Your task to perform on an android device: delete browsing data in the chrome app Image 0: 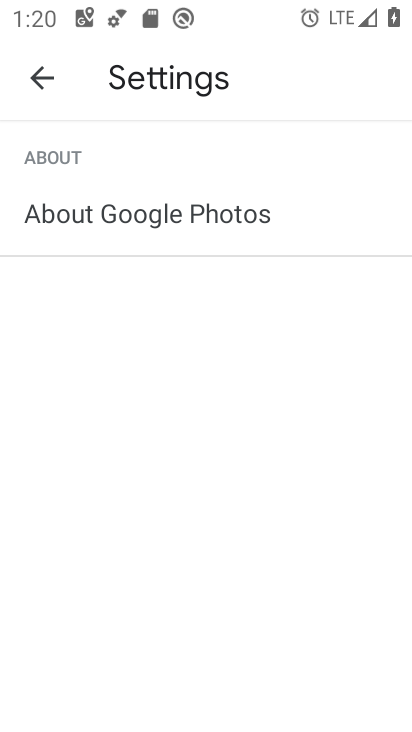
Step 0: press home button
Your task to perform on an android device: delete browsing data in the chrome app Image 1: 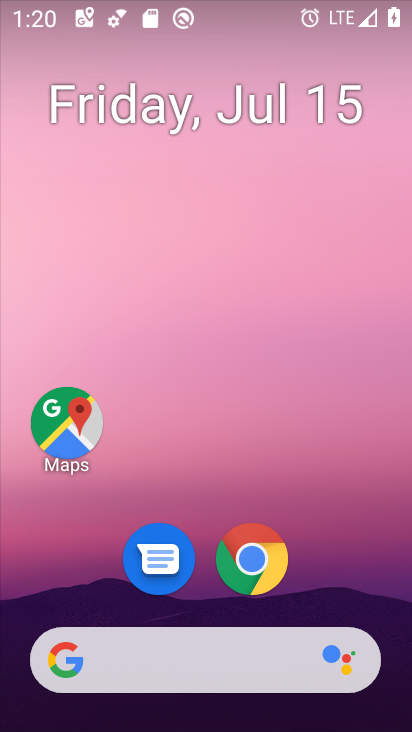
Step 1: drag from (364, 576) to (357, 85)
Your task to perform on an android device: delete browsing data in the chrome app Image 2: 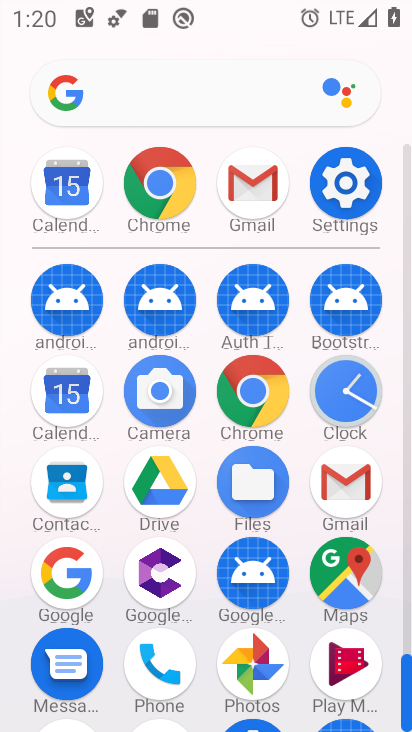
Step 2: click (260, 392)
Your task to perform on an android device: delete browsing data in the chrome app Image 3: 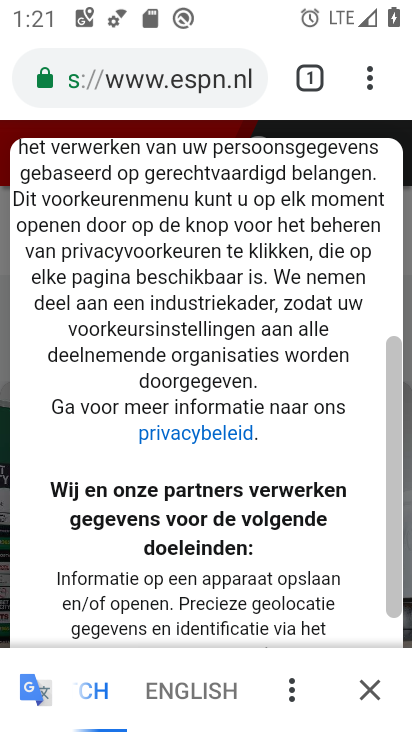
Step 3: click (365, 86)
Your task to perform on an android device: delete browsing data in the chrome app Image 4: 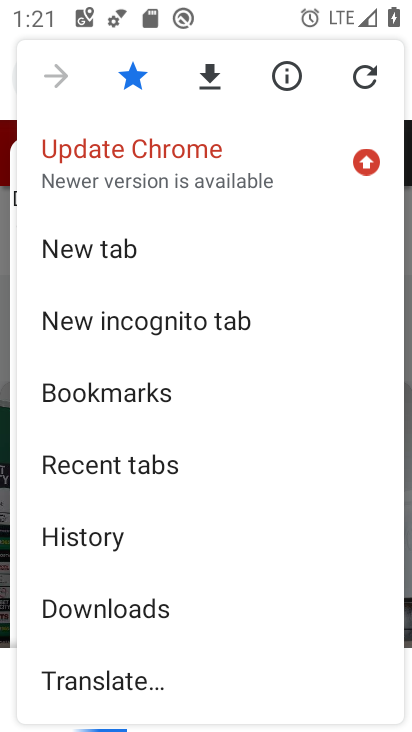
Step 4: drag from (317, 409) to (329, 311)
Your task to perform on an android device: delete browsing data in the chrome app Image 5: 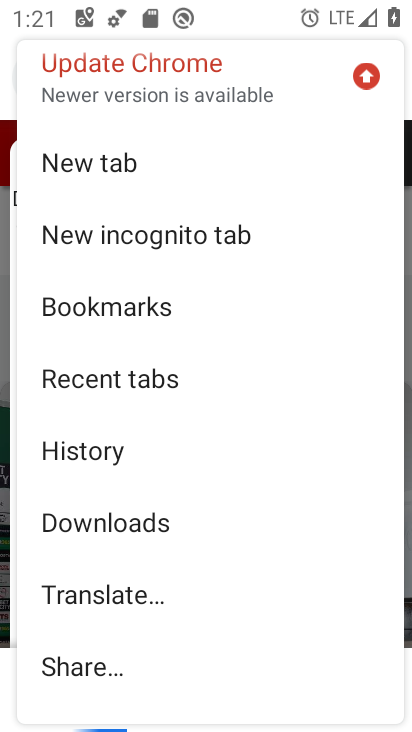
Step 5: drag from (311, 435) to (316, 358)
Your task to perform on an android device: delete browsing data in the chrome app Image 6: 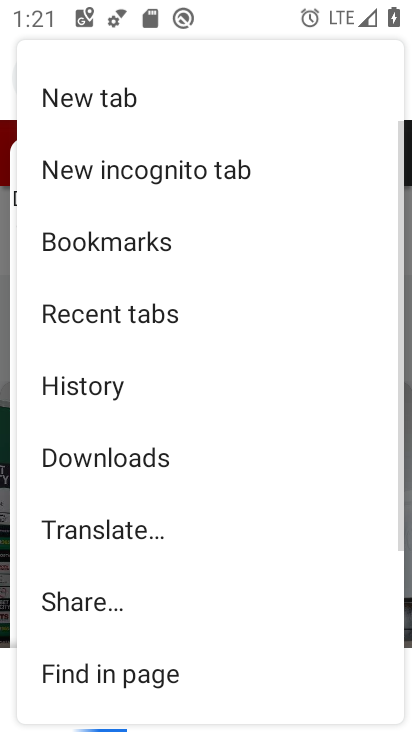
Step 6: drag from (322, 481) to (322, 399)
Your task to perform on an android device: delete browsing data in the chrome app Image 7: 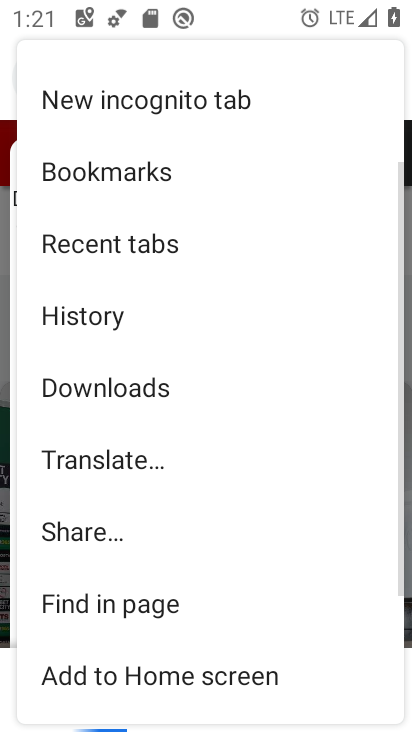
Step 7: drag from (311, 472) to (312, 387)
Your task to perform on an android device: delete browsing data in the chrome app Image 8: 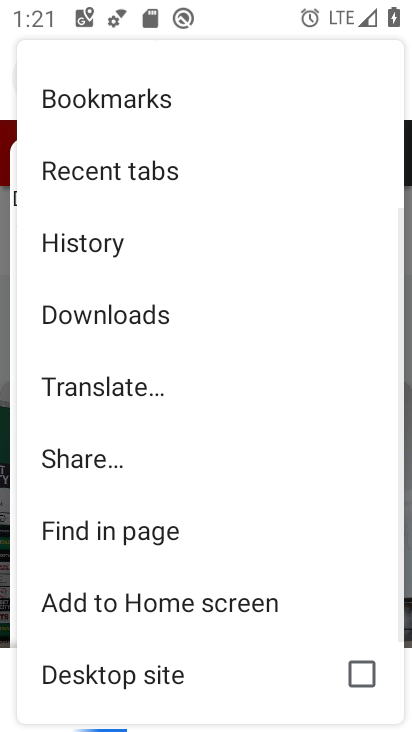
Step 8: drag from (303, 482) to (299, 374)
Your task to perform on an android device: delete browsing data in the chrome app Image 9: 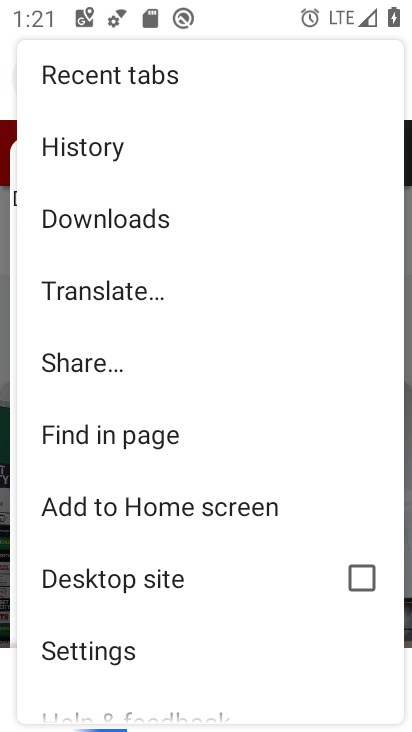
Step 9: drag from (251, 565) to (253, 451)
Your task to perform on an android device: delete browsing data in the chrome app Image 10: 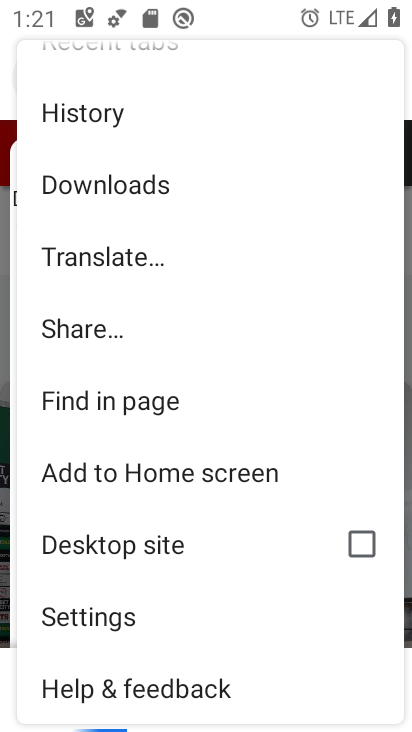
Step 10: click (169, 619)
Your task to perform on an android device: delete browsing data in the chrome app Image 11: 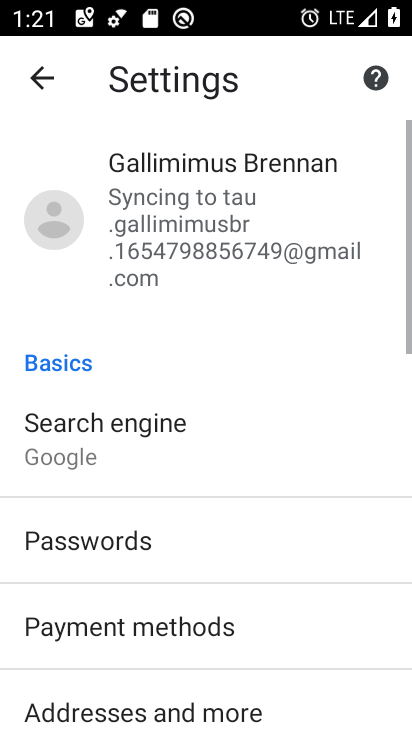
Step 11: drag from (256, 552) to (258, 454)
Your task to perform on an android device: delete browsing data in the chrome app Image 12: 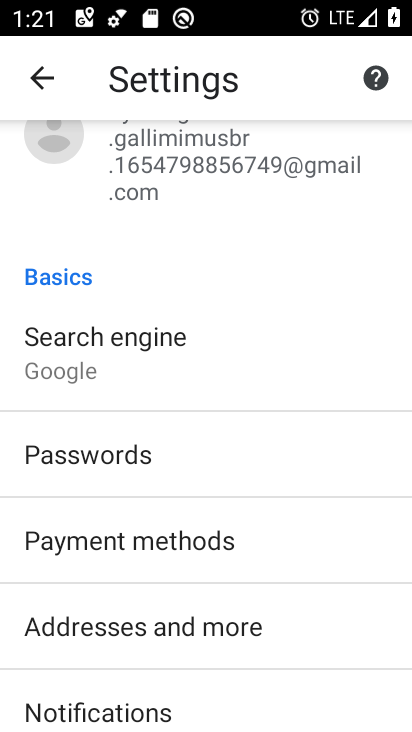
Step 12: drag from (284, 537) to (287, 433)
Your task to perform on an android device: delete browsing data in the chrome app Image 13: 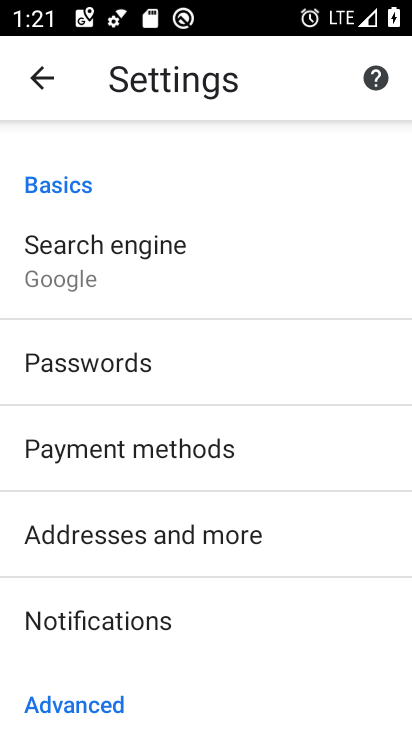
Step 13: drag from (323, 587) to (321, 494)
Your task to perform on an android device: delete browsing data in the chrome app Image 14: 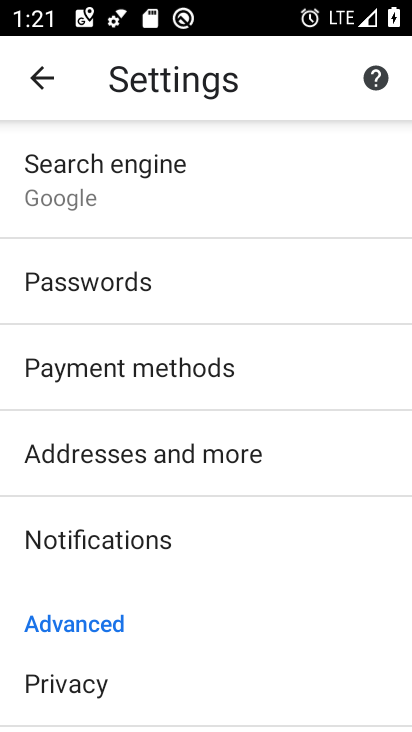
Step 14: drag from (320, 574) to (314, 476)
Your task to perform on an android device: delete browsing data in the chrome app Image 15: 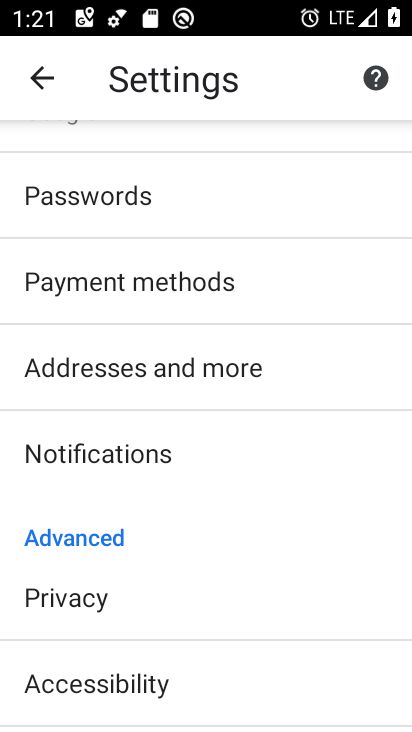
Step 15: drag from (295, 598) to (293, 487)
Your task to perform on an android device: delete browsing data in the chrome app Image 16: 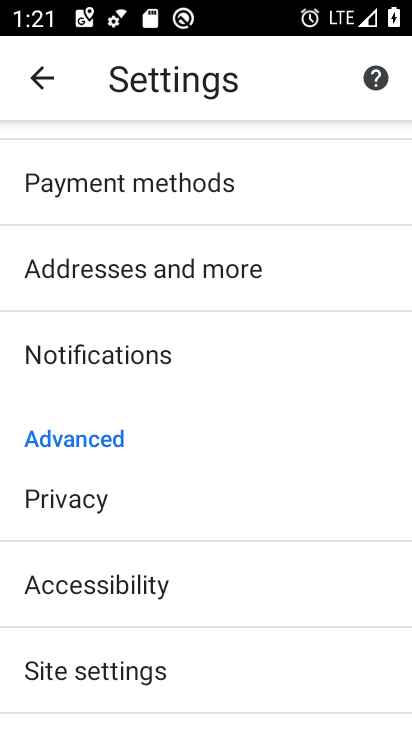
Step 16: drag from (289, 590) to (287, 488)
Your task to perform on an android device: delete browsing data in the chrome app Image 17: 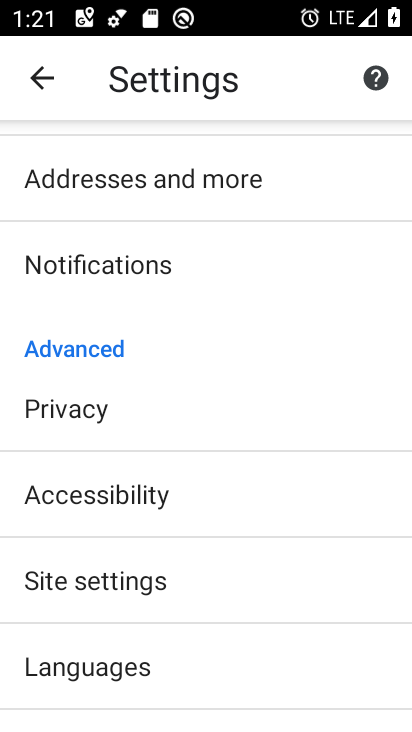
Step 17: drag from (273, 597) to (262, 483)
Your task to perform on an android device: delete browsing data in the chrome app Image 18: 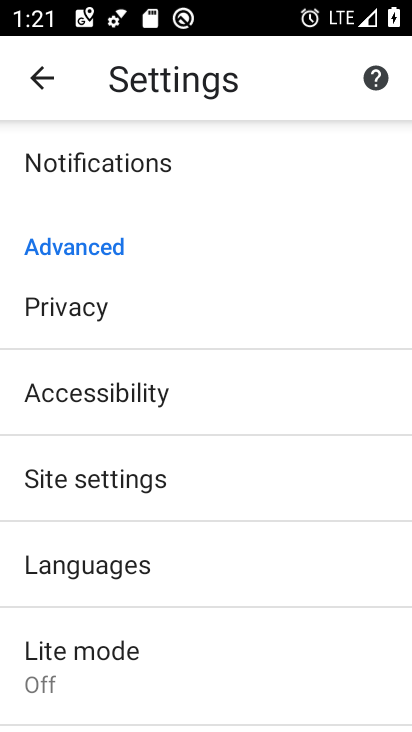
Step 18: click (167, 324)
Your task to perform on an android device: delete browsing data in the chrome app Image 19: 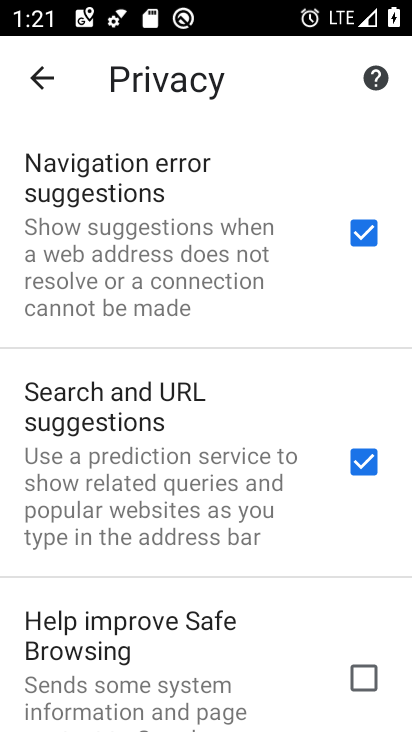
Step 19: drag from (300, 530) to (304, 428)
Your task to perform on an android device: delete browsing data in the chrome app Image 20: 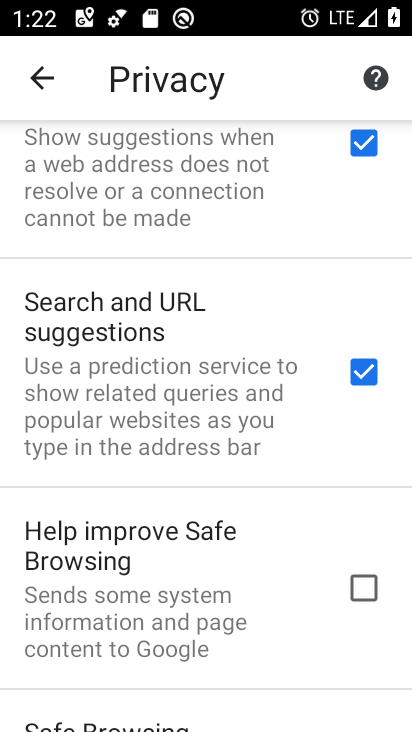
Step 20: drag from (280, 562) to (286, 449)
Your task to perform on an android device: delete browsing data in the chrome app Image 21: 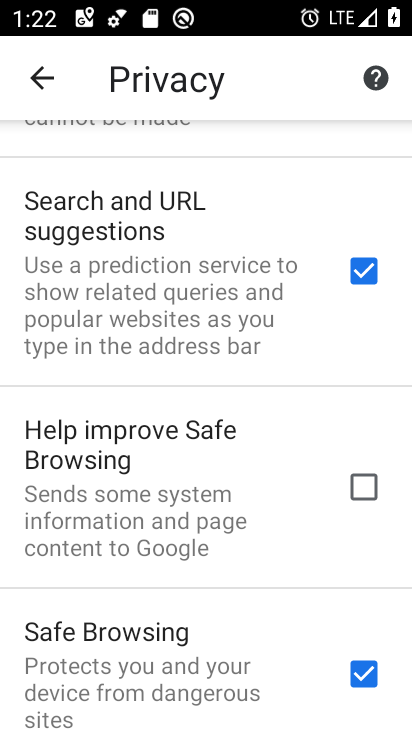
Step 21: drag from (290, 572) to (291, 441)
Your task to perform on an android device: delete browsing data in the chrome app Image 22: 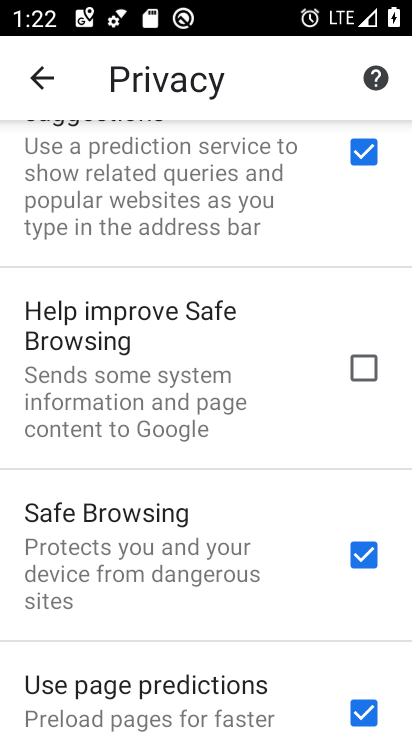
Step 22: drag from (286, 580) to (287, 458)
Your task to perform on an android device: delete browsing data in the chrome app Image 23: 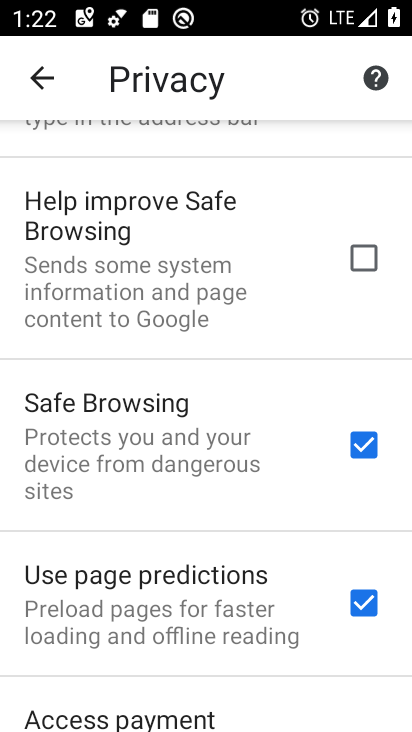
Step 23: drag from (282, 580) to (281, 460)
Your task to perform on an android device: delete browsing data in the chrome app Image 24: 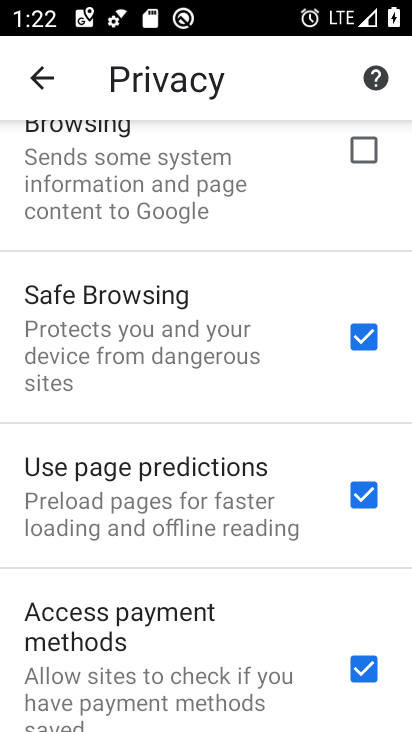
Step 24: drag from (275, 595) to (281, 471)
Your task to perform on an android device: delete browsing data in the chrome app Image 25: 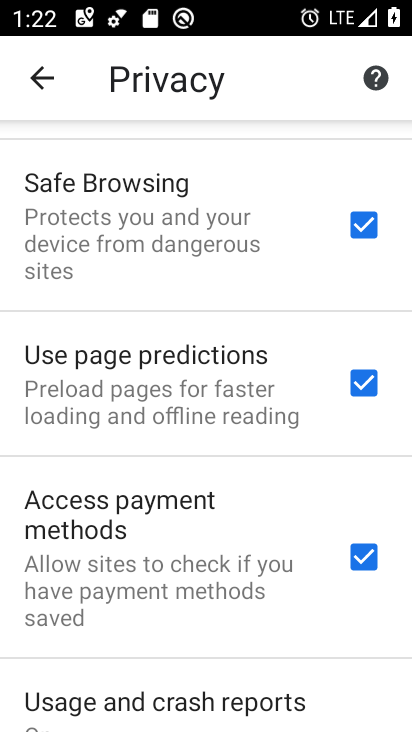
Step 25: drag from (297, 607) to (290, 477)
Your task to perform on an android device: delete browsing data in the chrome app Image 26: 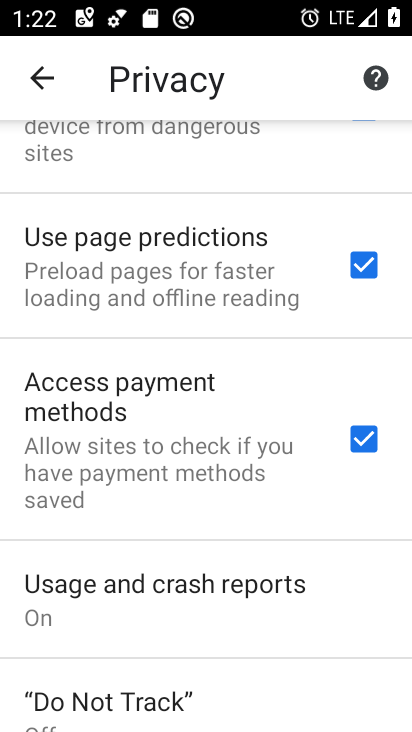
Step 26: drag from (280, 622) to (285, 439)
Your task to perform on an android device: delete browsing data in the chrome app Image 27: 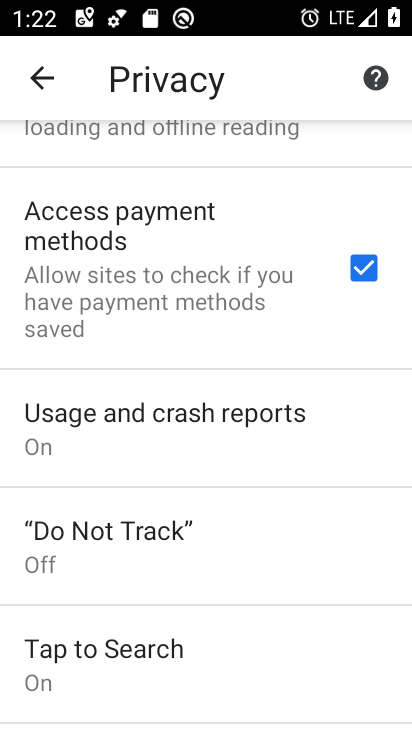
Step 27: drag from (293, 640) to (292, 476)
Your task to perform on an android device: delete browsing data in the chrome app Image 28: 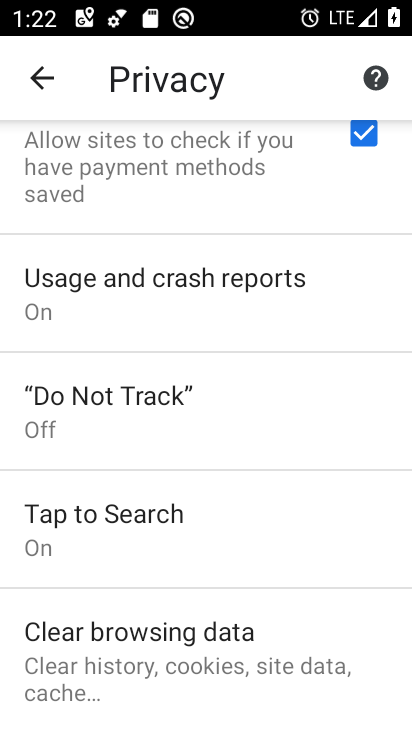
Step 28: click (279, 647)
Your task to perform on an android device: delete browsing data in the chrome app Image 29: 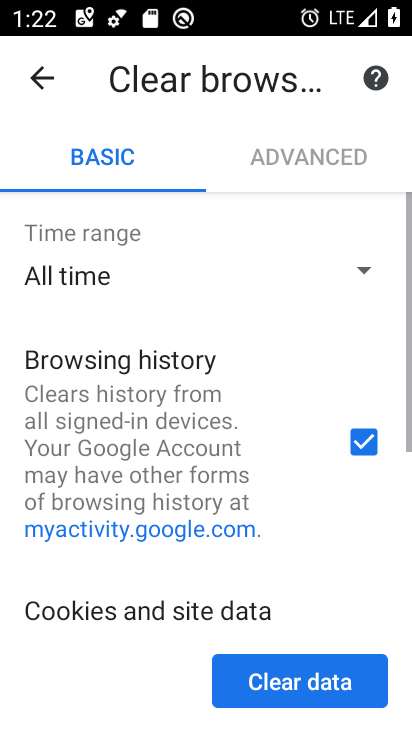
Step 29: click (285, 678)
Your task to perform on an android device: delete browsing data in the chrome app Image 30: 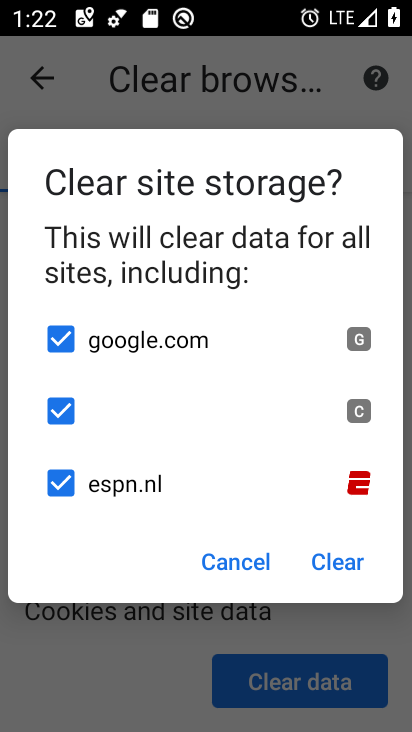
Step 30: click (327, 570)
Your task to perform on an android device: delete browsing data in the chrome app Image 31: 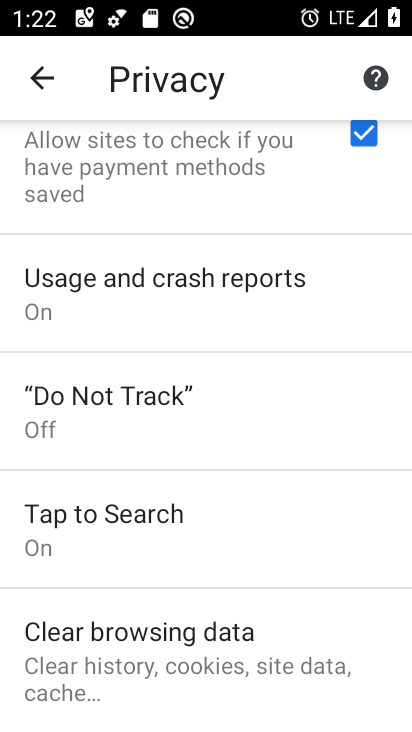
Step 31: task complete